Your task to perform on an android device: toggle improve location accuracy Image 0: 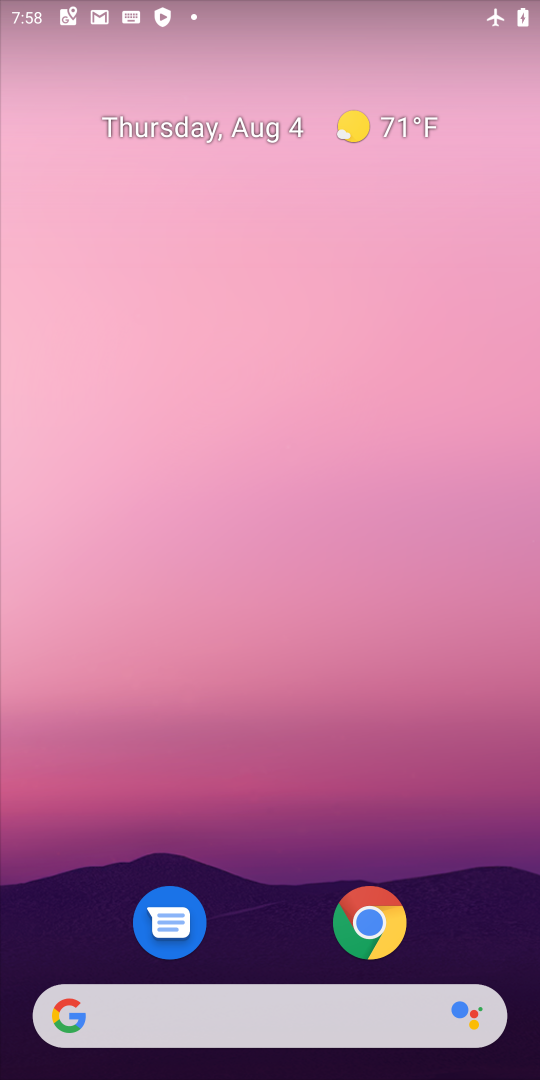
Step 0: drag from (498, 963) to (476, 350)
Your task to perform on an android device: toggle improve location accuracy Image 1: 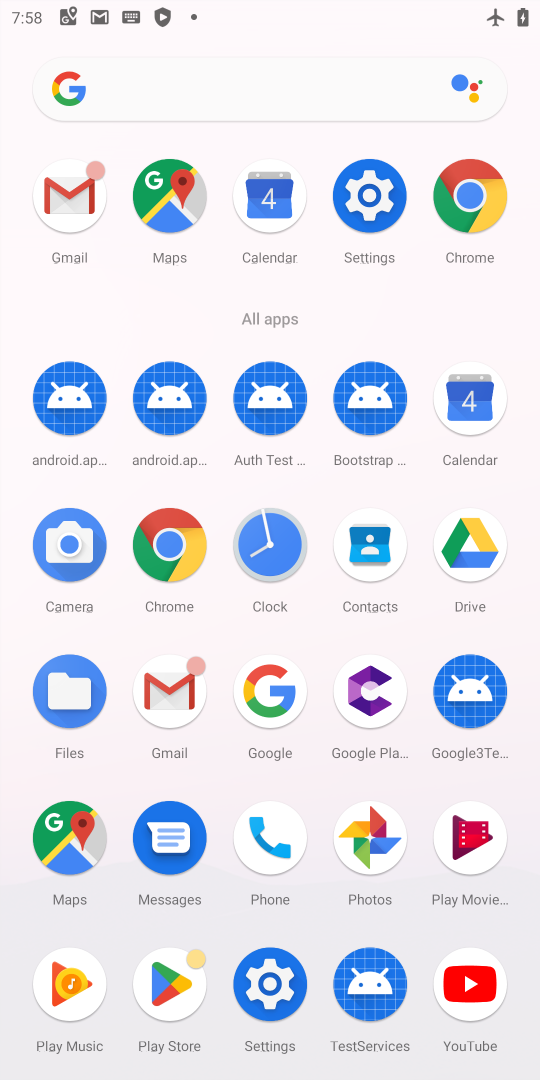
Step 1: click (272, 987)
Your task to perform on an android device: toggle improve location accuracy Image 2: 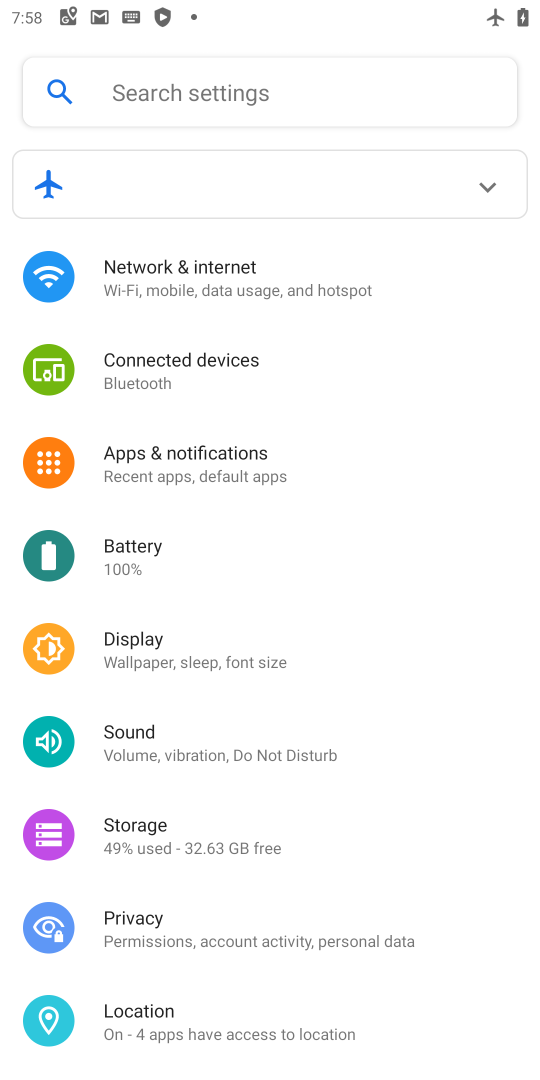
Step 2: click (263, 1023)
Your task to perform on an android device: toggle improve location accuracy Image 3: 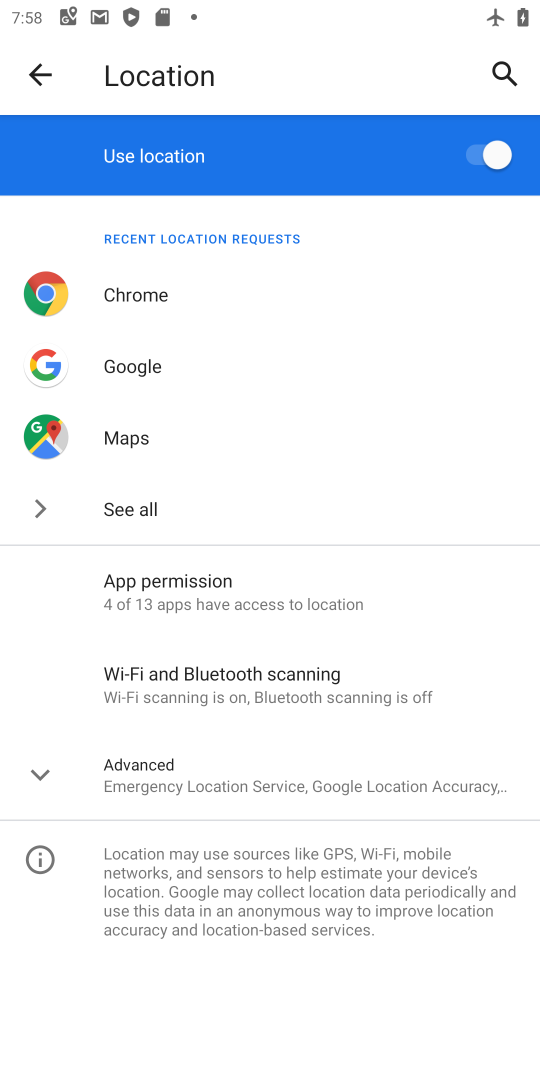
Step 3: click (187, 780)
Your task to perform on an android device: toggle improve location accuracy Image 4: 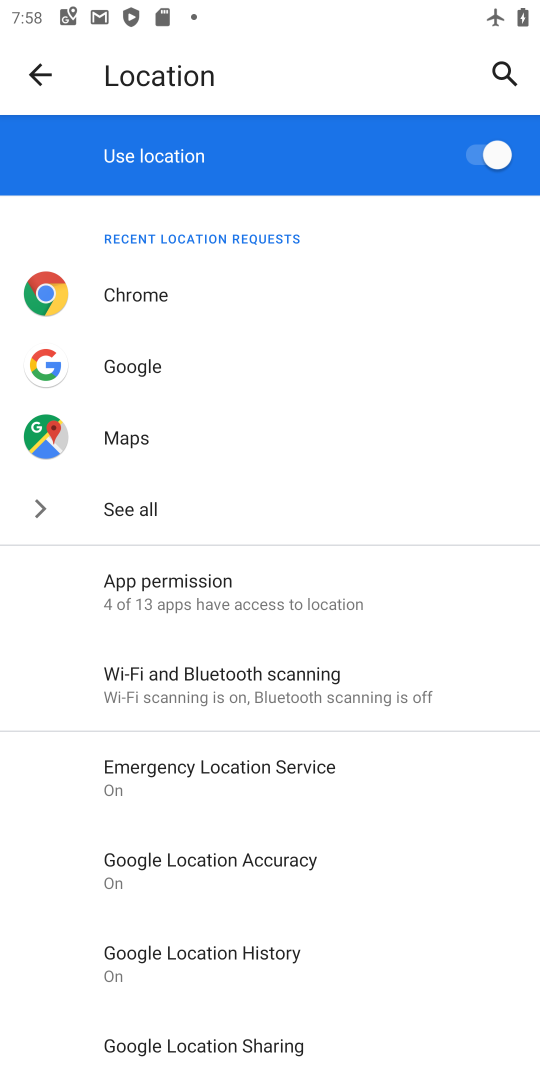
Step 4: click (275, 867)
Your task to perform on an android device: toggle improve location accuracy Image 5: 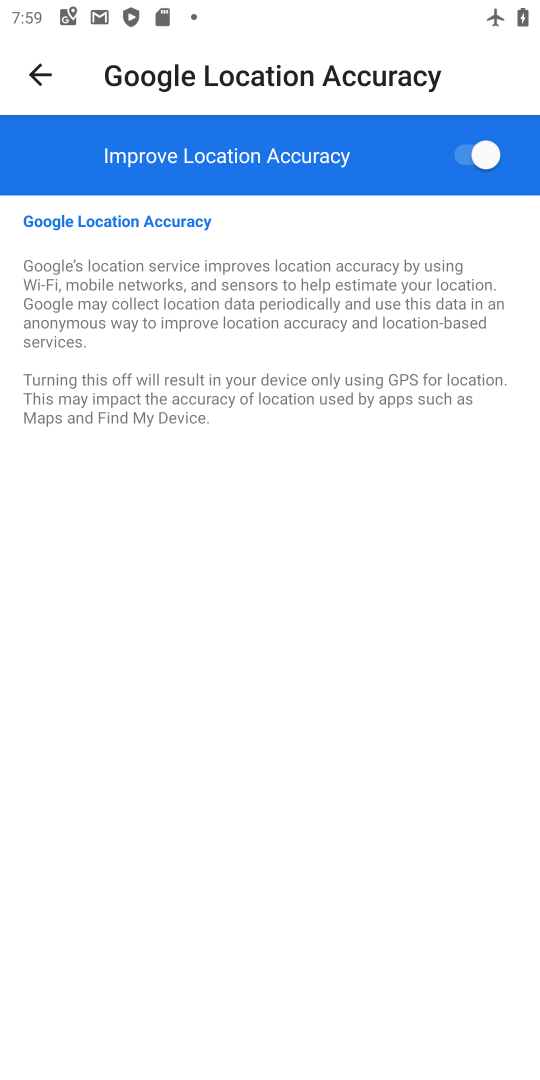
Step 5: click (484, 147)
Your task to perform on an android device: toggle improve location accuracy Image 6: 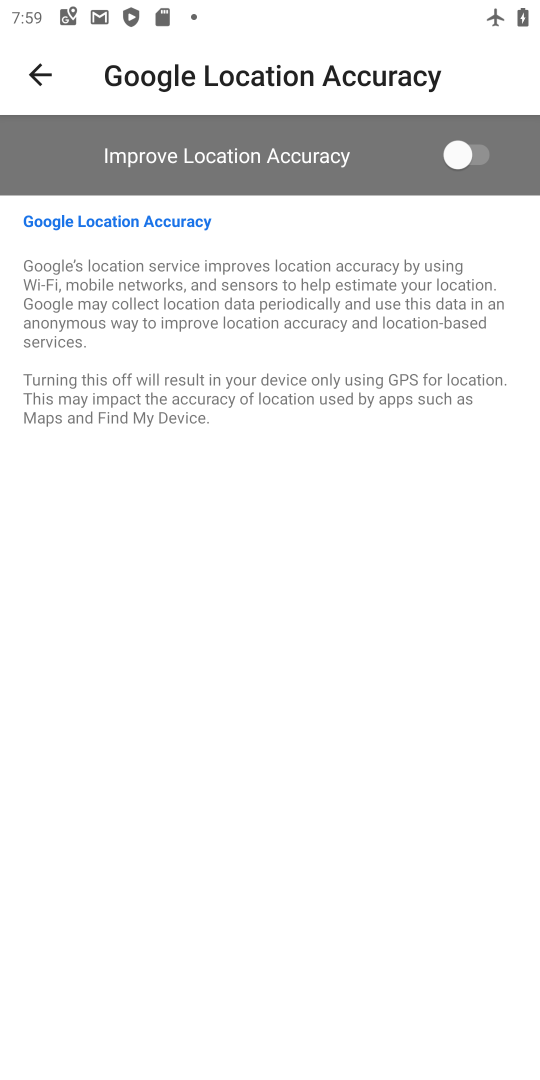
Step 6: task complete